Your task to perform on an android device: Search for sushi restaurants on Maps Image 0: 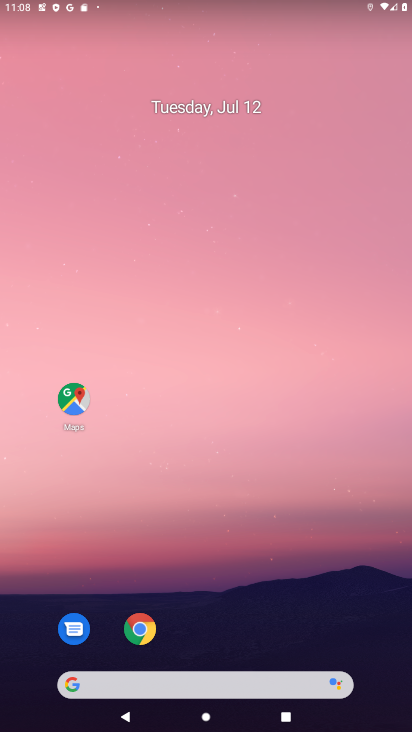
Step 0: drag from (211, 645) to (217, 228)
Your task to perform on an android device: Search for sushi restaurants on Maps Image 1: 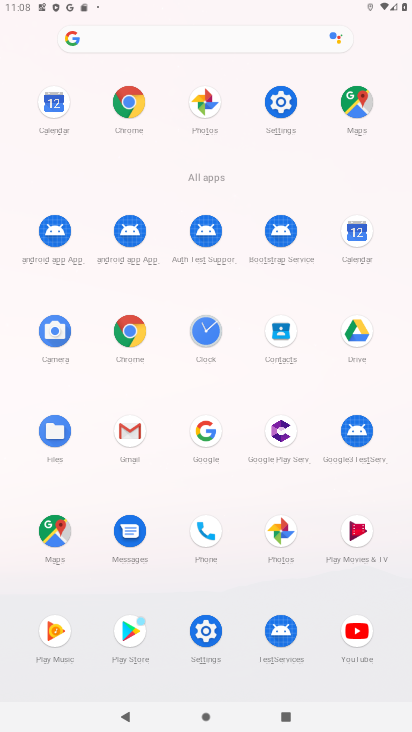
Step 1: click (52, 528)
Your task to perform on an android device: Search for sushi restaurants on Maps Image 2: 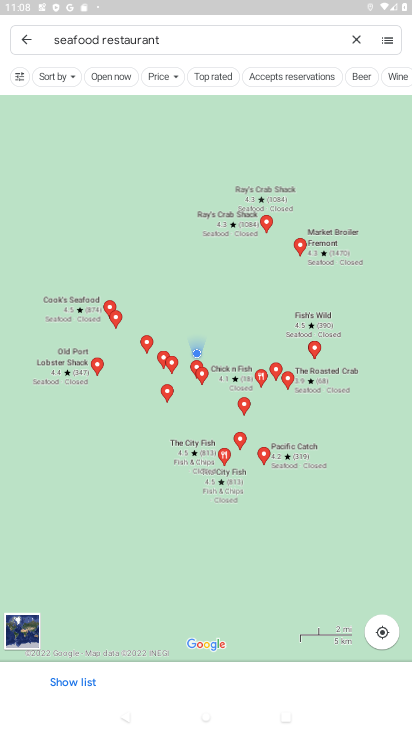
Step 2: click (352, 40)
Your task to perform on an android device: Search for sushi restaurants on Maps Image 3: 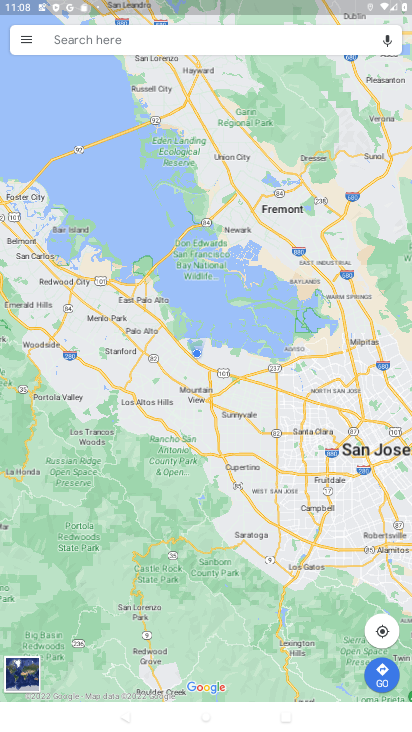
Step 3: click (222, 26)
Your task to perform on an android device: Search for sushi restaurants on Maps Image 4: 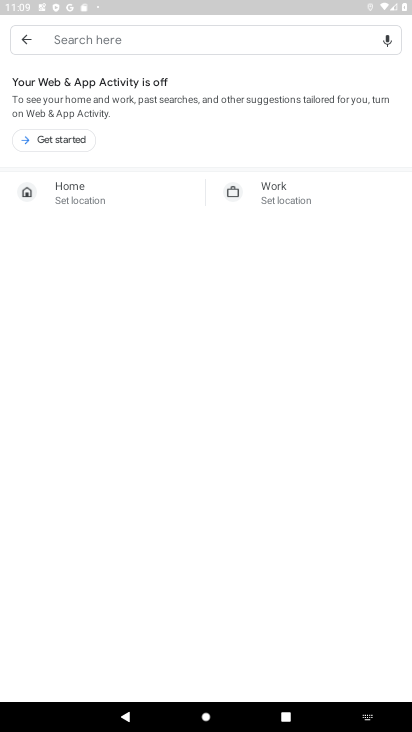
Step 4: type " sushi restaurants "
Your task to perform on an android device: Search for sushi restaurants on Maps Image 5: 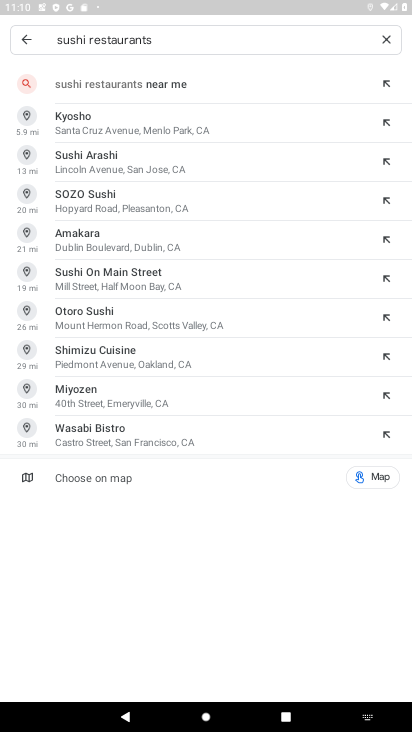
Step 5: click (134, 85)
Your task to perform on an android device: Search for sushi restaurants on Maps Image 6: 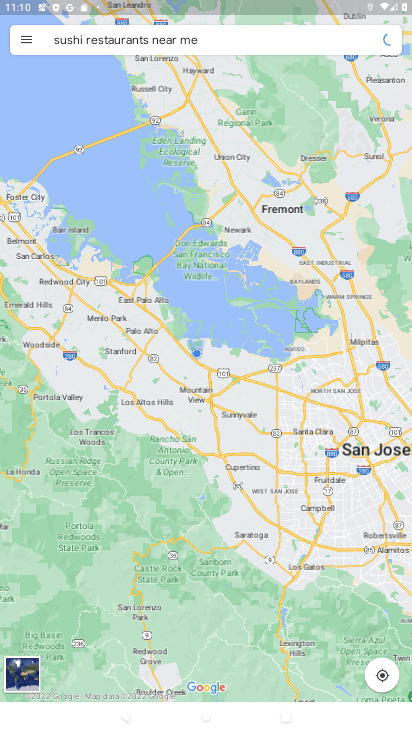
Step 6: task complete